Your task to perform on an android device: move an email to a new category in the gmail app Image 0: 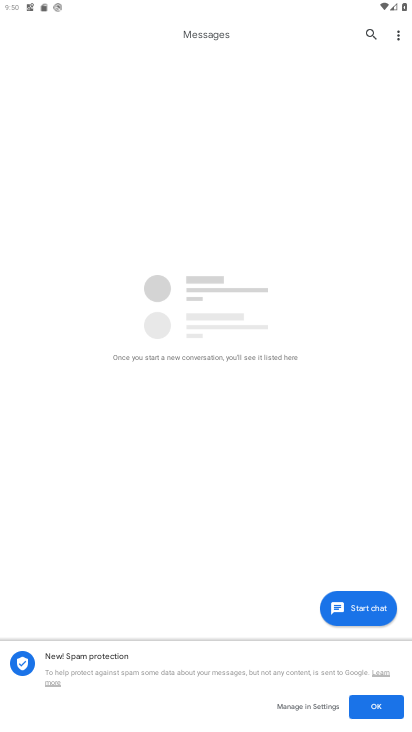
Step 0: press home button
Your task to perform on an android device: move an email to a new category in the gmail app Image 1: 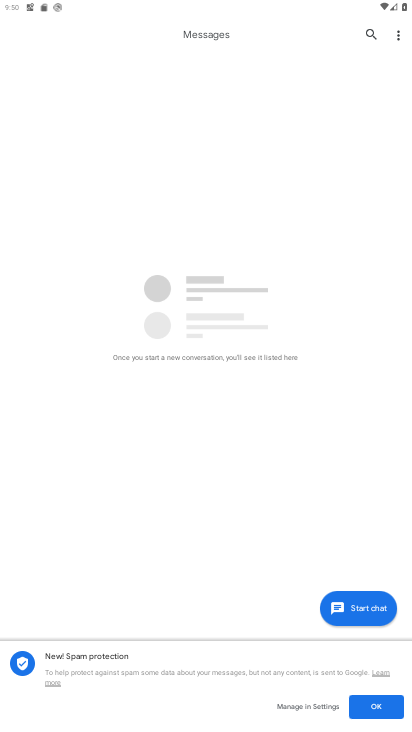
Step 1: press home button
Your task to perform on an android device: move an email to a new category in the gmail app Image 2: 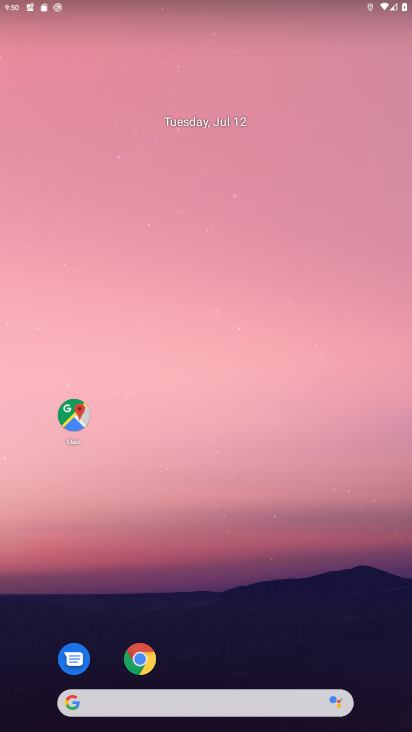
Step 2: drag from (318, 637) to (236, 45)
Your task to perform on an android device: move an email to a new category in the gmail app Image 3: 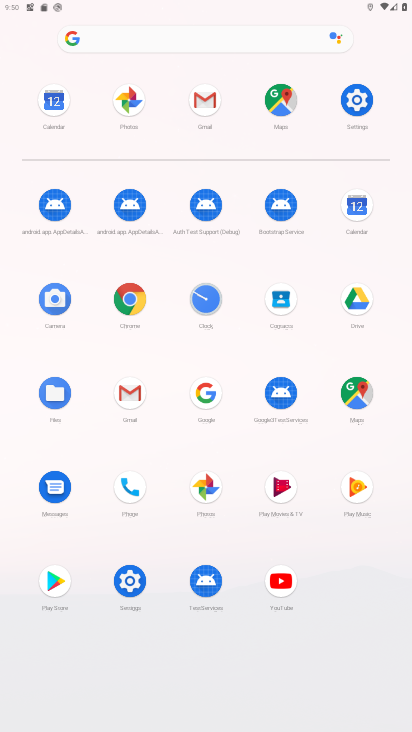
Step 3: click (126, 399)
Your task to perform on an android device: move an email to a new category in the gmail app Image 4: 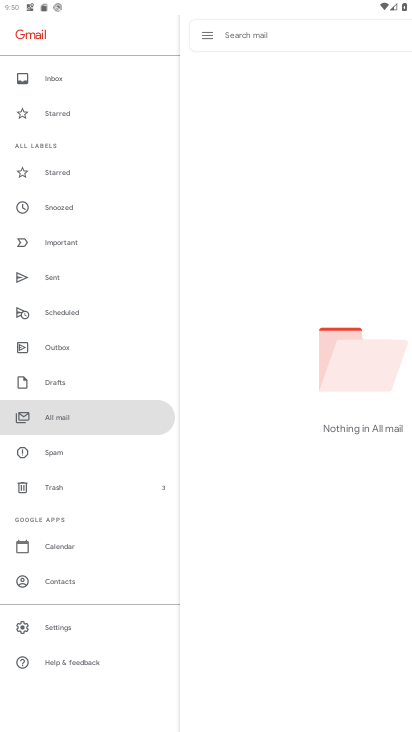
Step 4: task complete